Your task to perform on an android device: turn notification dots off Image 0: 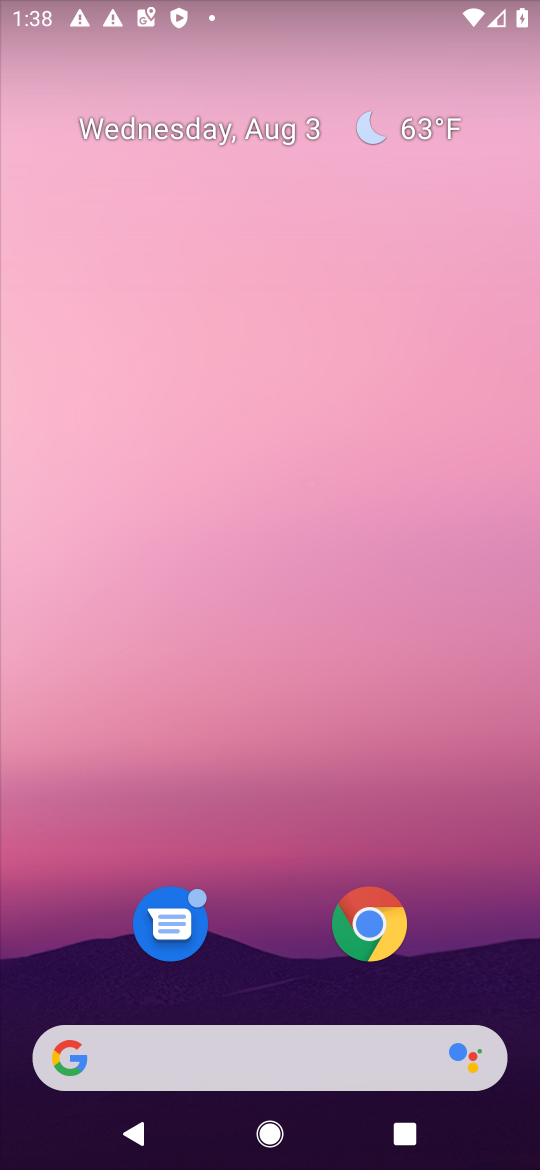
Step 0: drag from (281, 990) to (331, 136)
Your task to perform on an android device: turn notification dots off Image 1: 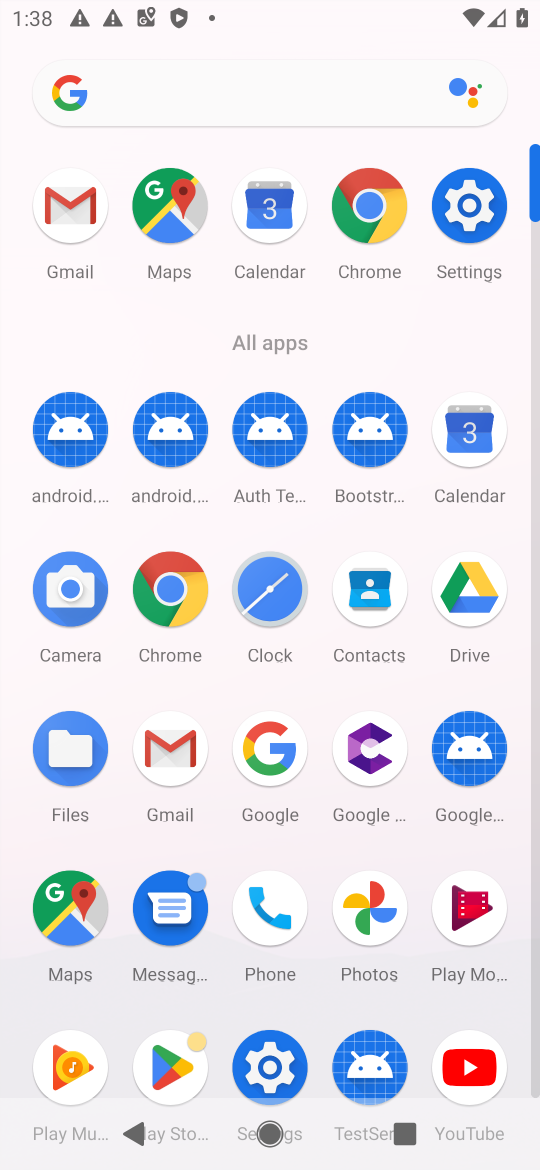
Step 1: click (470, 199)
Your task to perform on an android device: turn notification dots off Image 2: 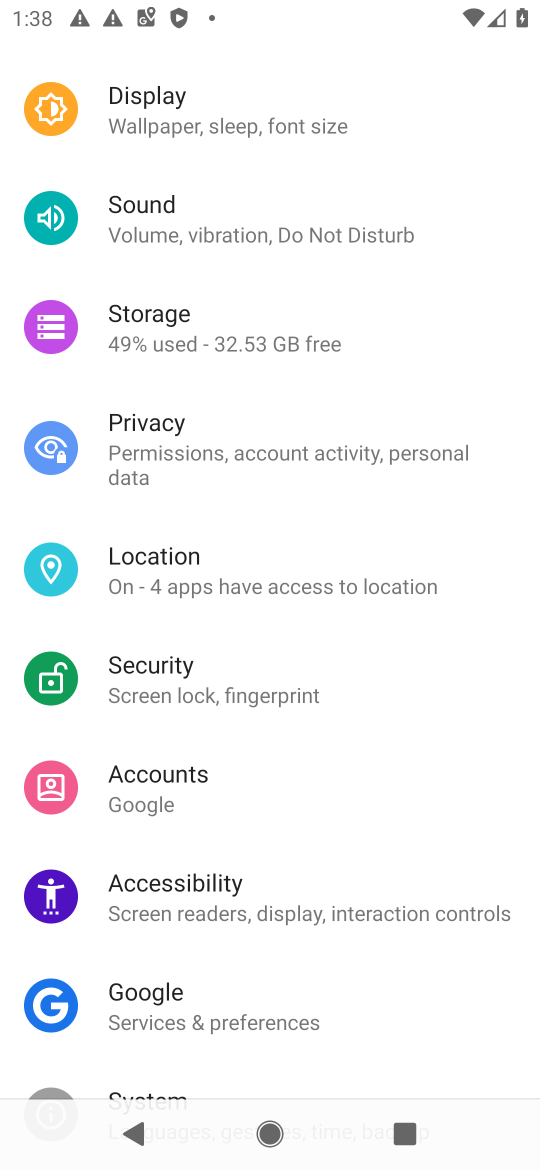
Step 2: drag from (243, 122) to (286, 948)
Your task to perform on an android device: turn notification dots off Image 3: 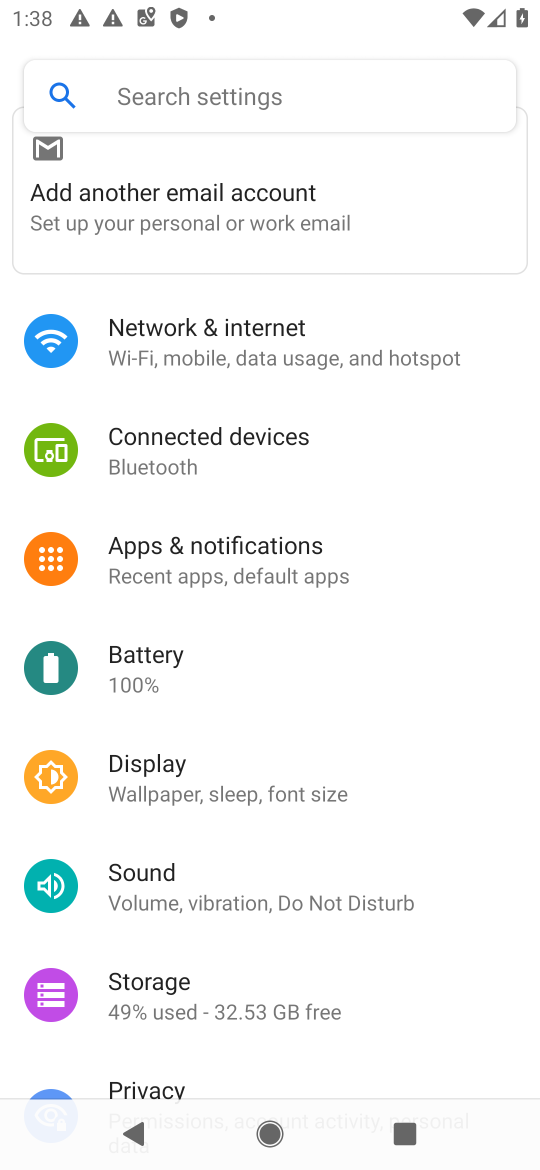
Step 3: click (268, 553)
Your task to perform on an android device: turn notification dots off Image 4: 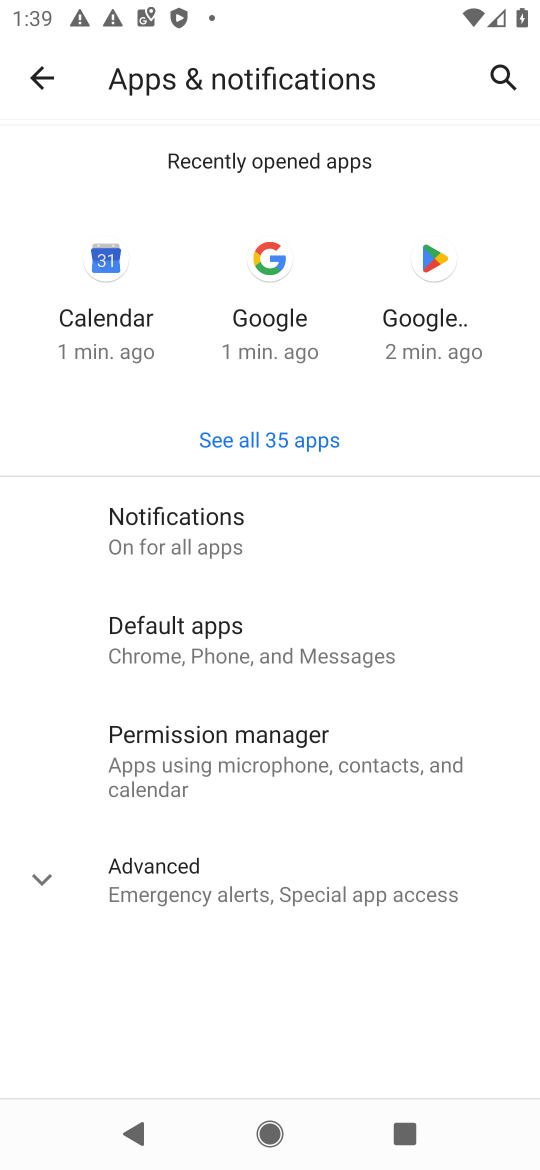
Step 4: click (187, 525)
Your task to perform on an android device: turn notification dots off Image 5: 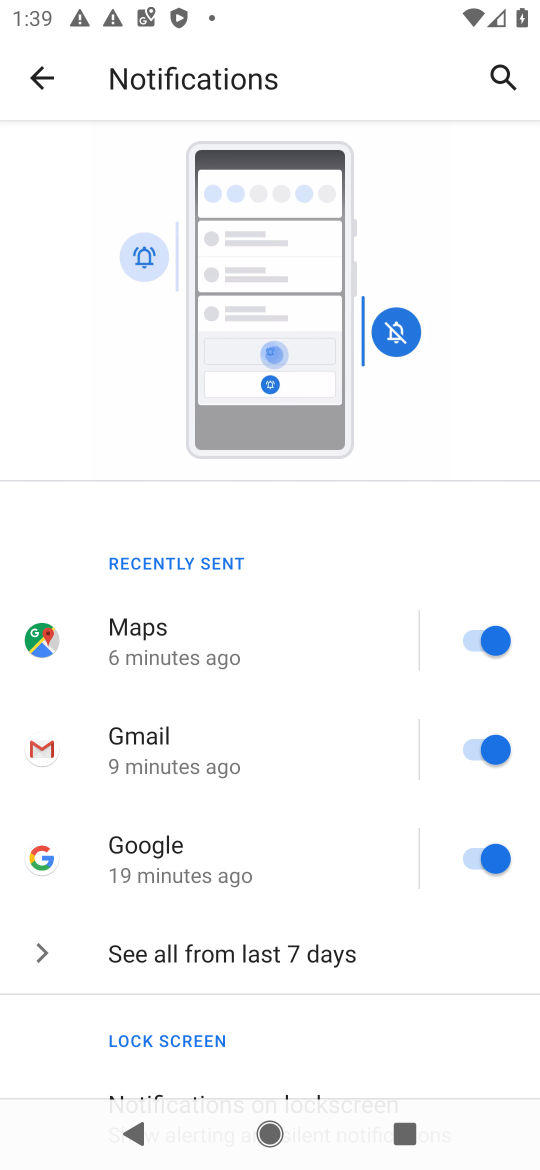
Step 5: drag from (311, 1008) to (381, 400)
Your task to perform on an android device: turn notification dots off Image 6: 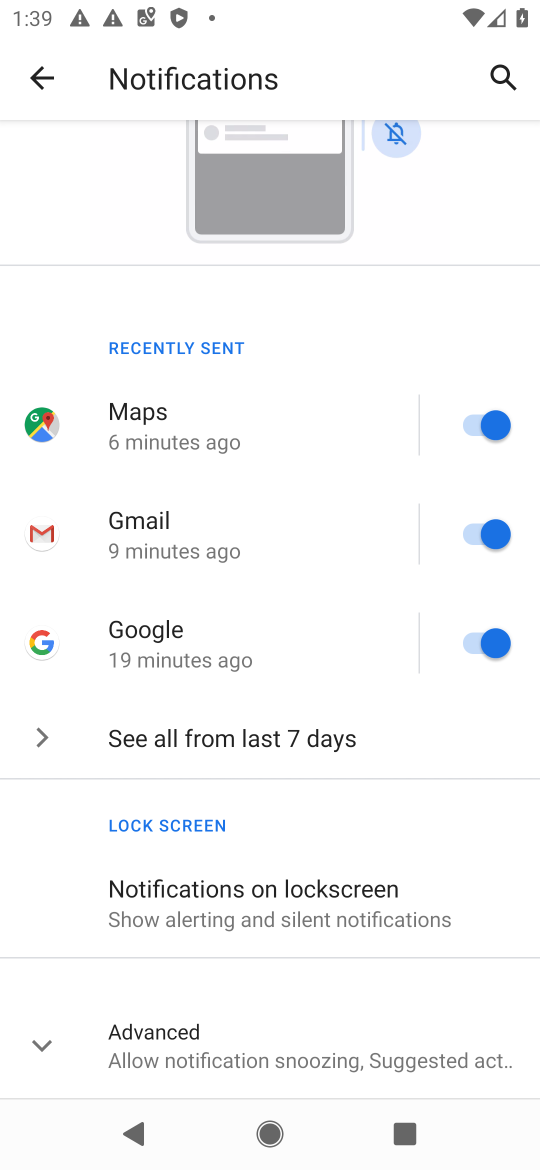
Step 6: click (38, 1034)
Your task to perform on an android device: turn notification dots off Image 7: 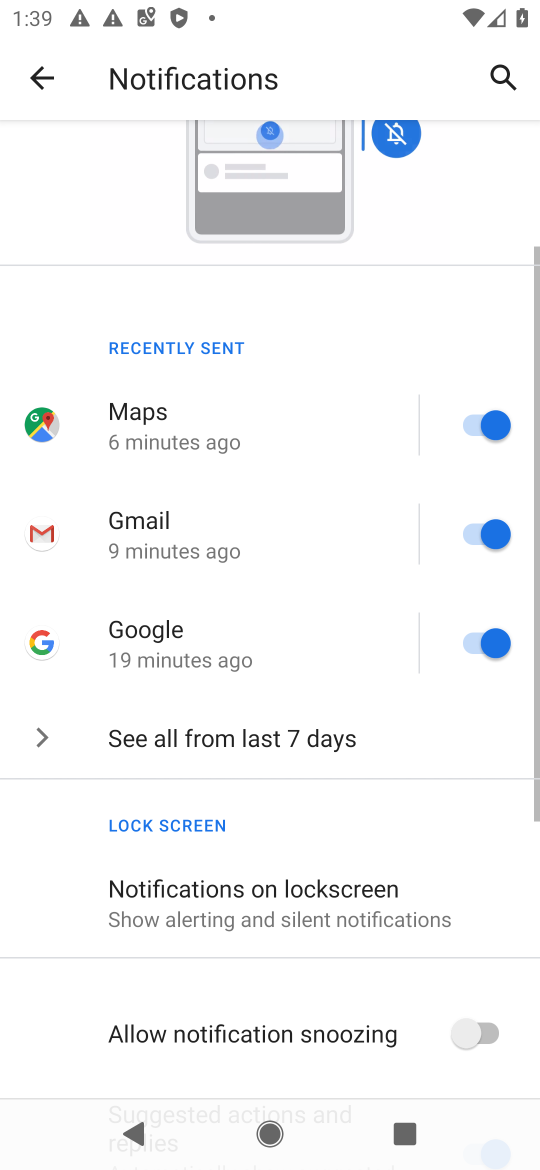
Step 7: drag from (253, 868) to (299, 254)
Your task to perform on an android device: turn notification dots off Image 8: 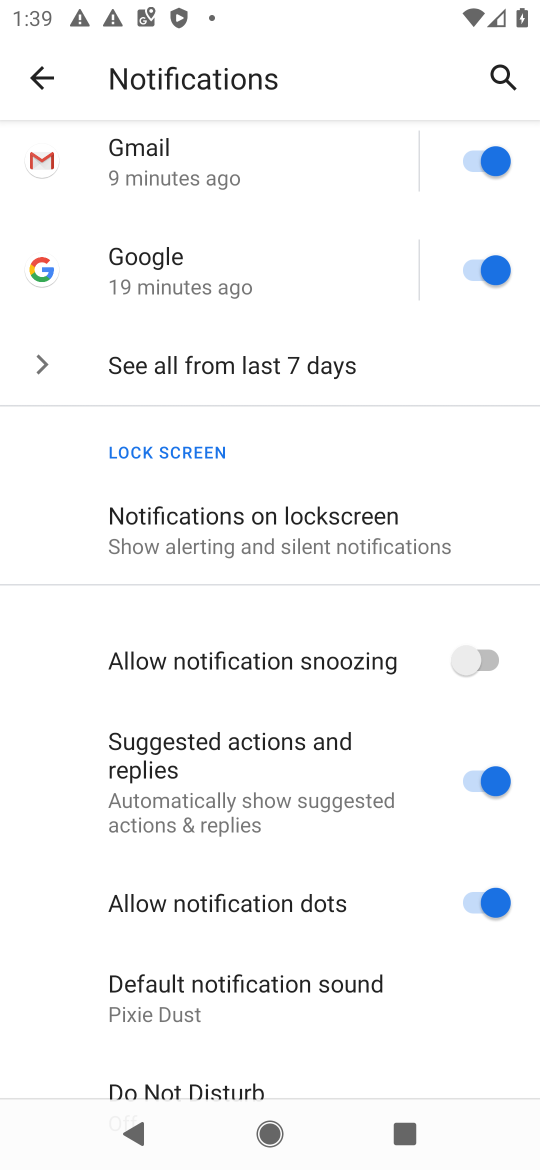
Step 8: click (486, 894)
Your task to perform on an android device: turn notification dots off Image 9: 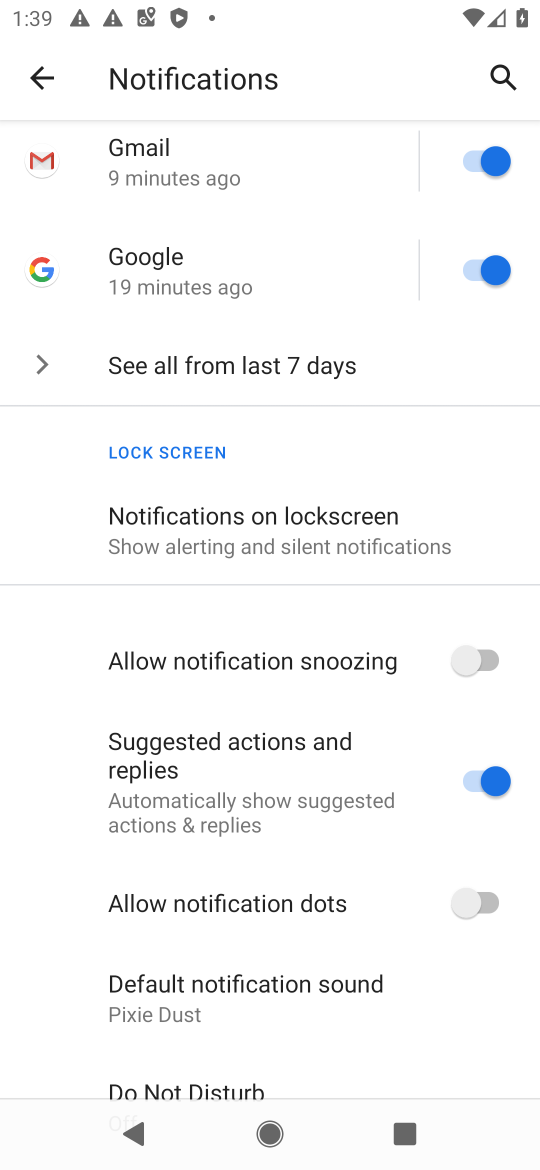
Step 9: task complete